Your task to perform on an android device: Clear the cart on costco. Search for "bose quietcomfort 35" on costco, select the first entry, add it to the cart, then select checkout. Image 0: 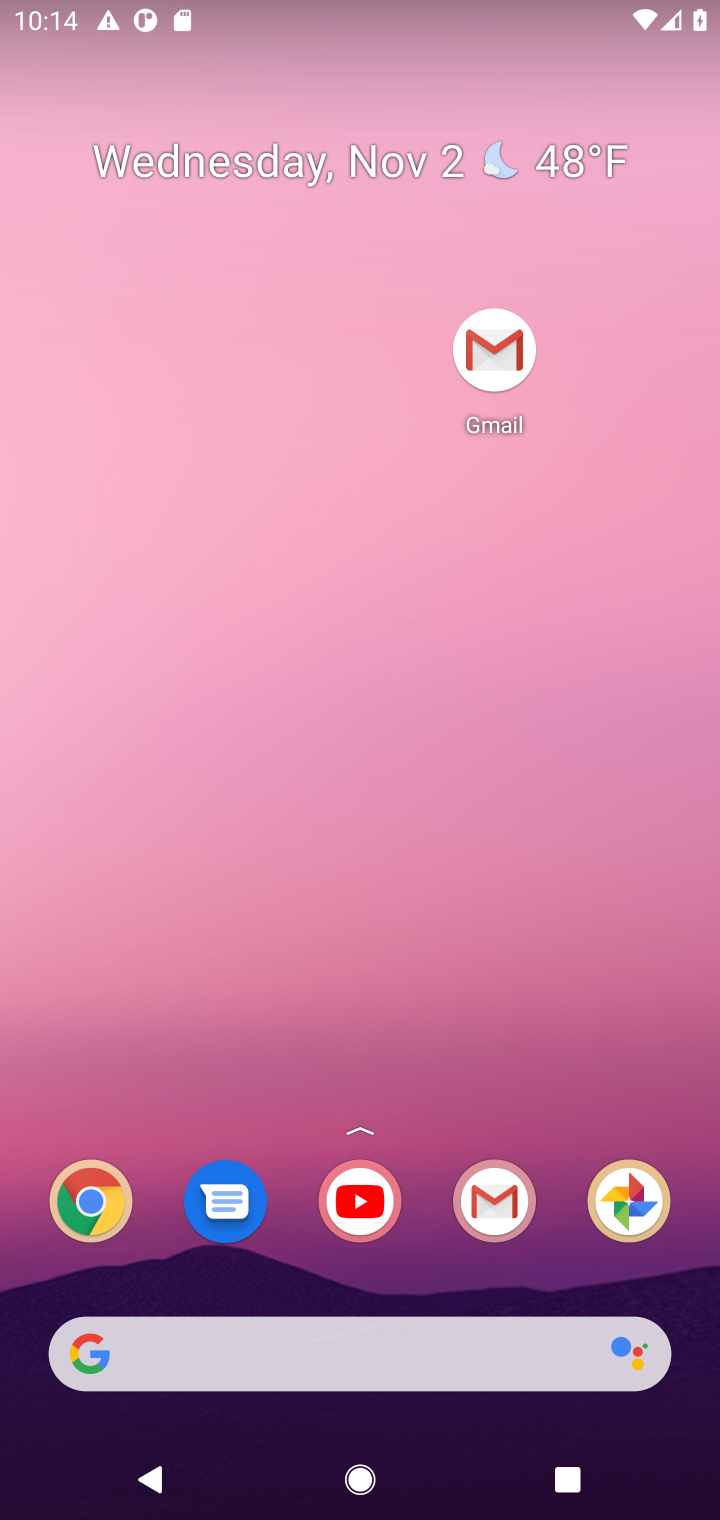
Step 0: drag from (430, 1280) to (446, 134)
Your task to perform on an android device: Clear the cart on costco. Search for "bose quietcomfort 35" on costco, select the first entry, add it to the cart, then select checkout. Image 1: 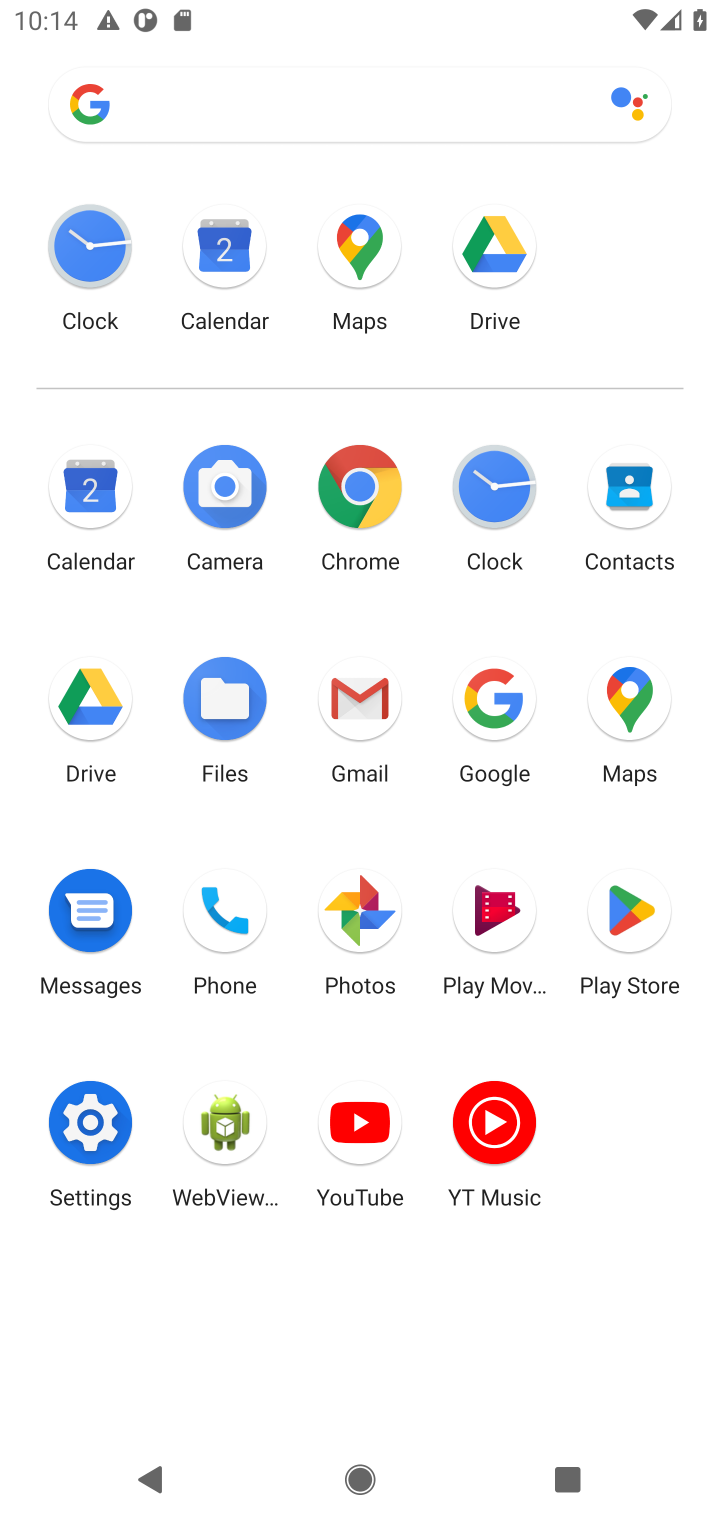
Step 1: click (366, 485)
Your task to perform on an android device: Clear the cart on costco. Search for "bose quietcomfort 35" on costco, select the first entry, add it to the cart, then select checkout. Image 2: 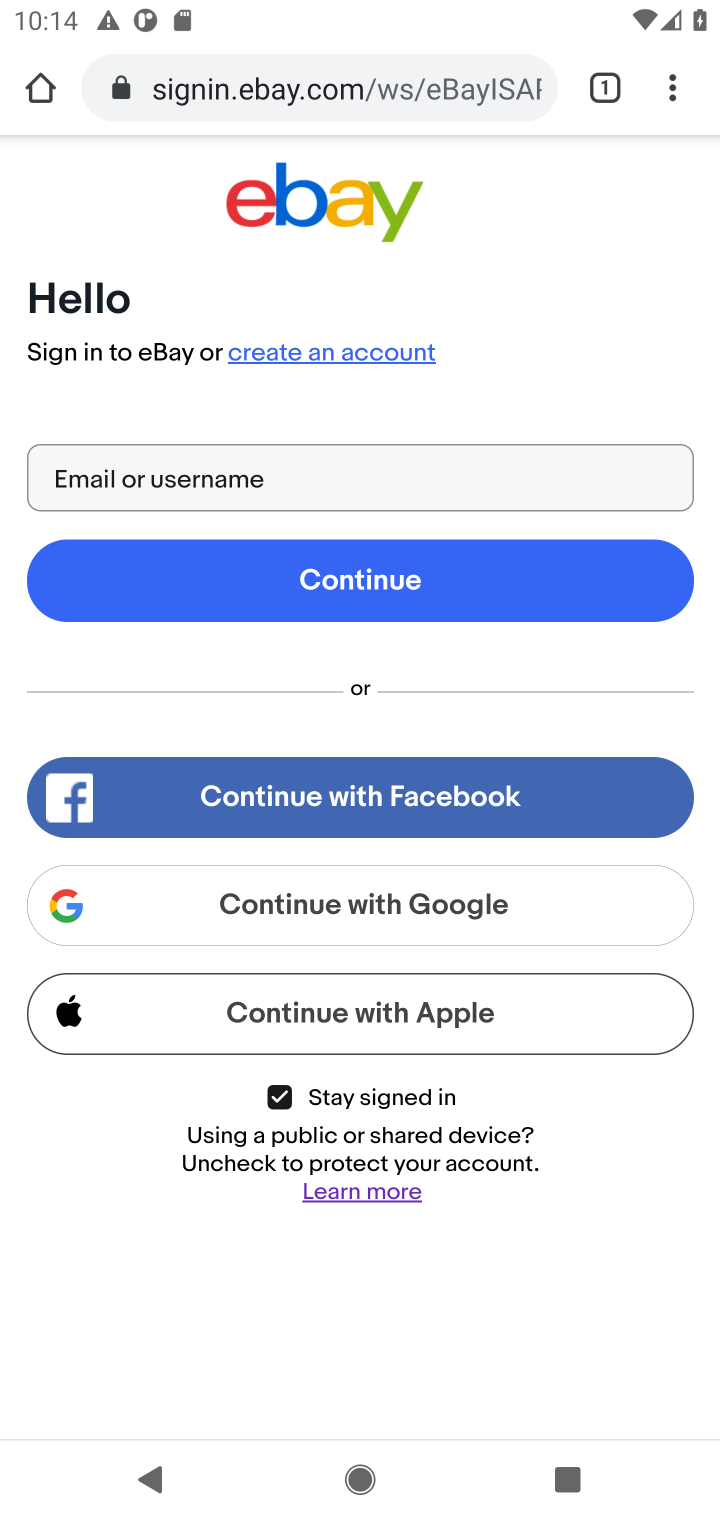
Step 2: click (375, 86)
Your task to perform on an android device: Clear the cart on costco. Search for "bose quietcomfort 35" on costco, select the first entry, add it to the cart, then select checkout. Image 3: 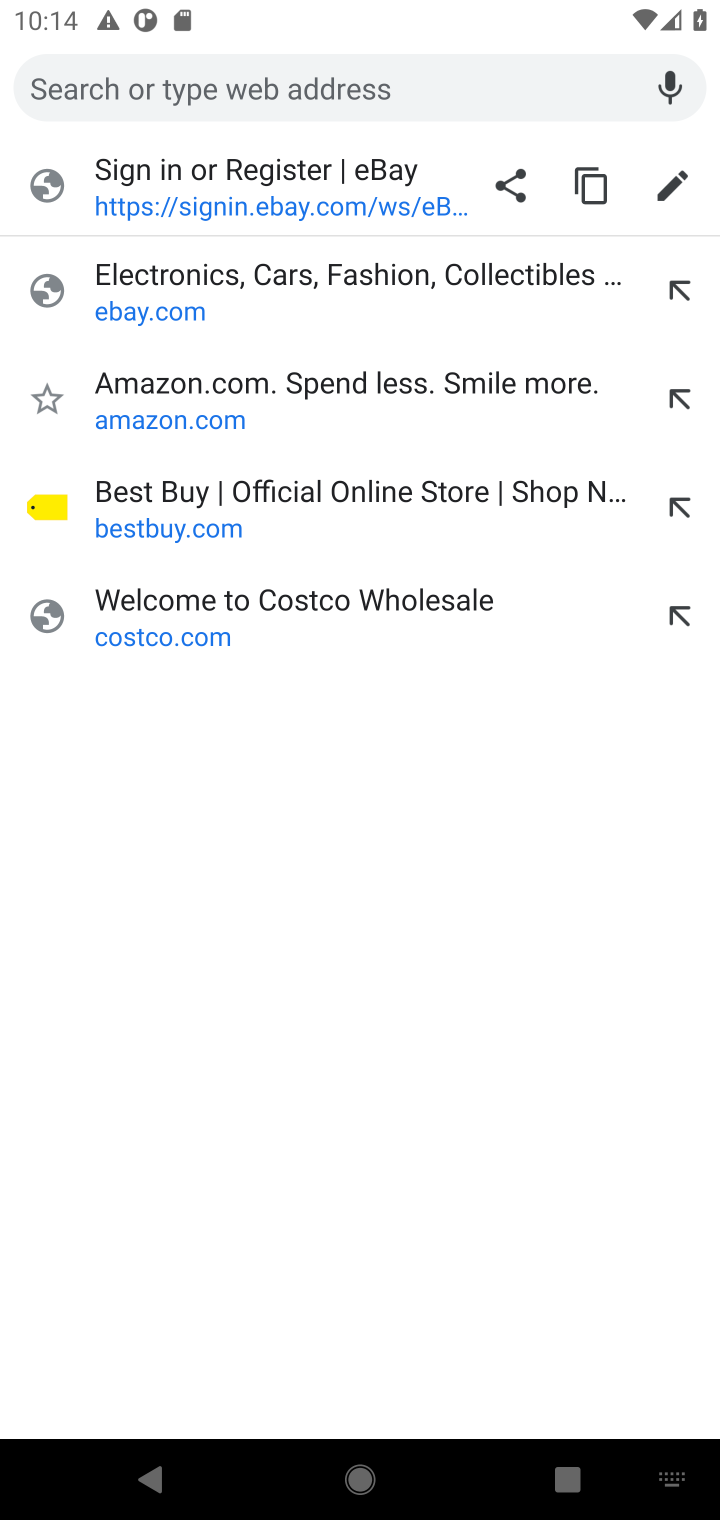
Step 3: type "costco.com"
Your task to perform on an android device: Clear the cart on costco. Search for "bose quietcomfort 35" on costco, select the first entry, add it to the cart, then select checkout. Image 4: 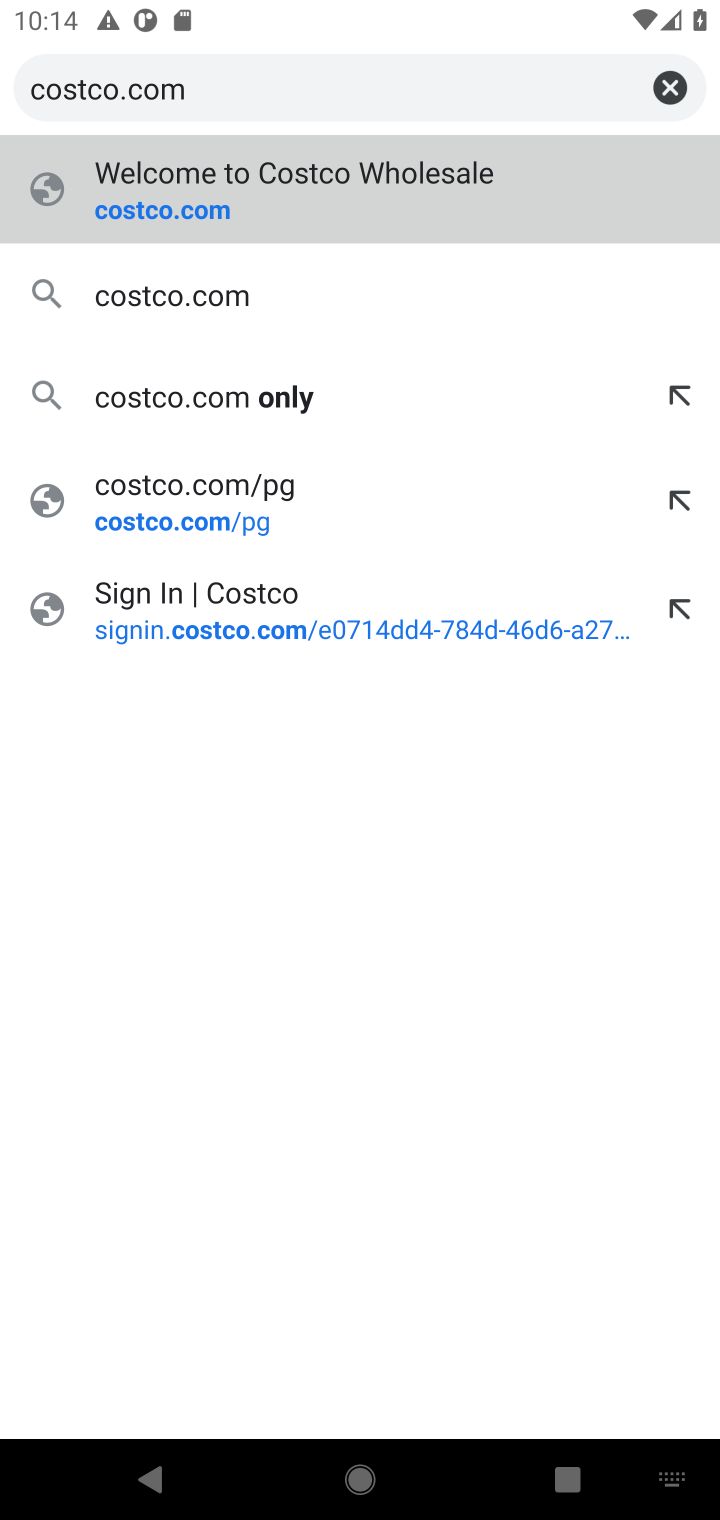
Step 4: press enter
Your task to perform on an android device: Clear the cart on costco. Search for "bose quietcomfort 35" on costco, select the first entry, add it to the cart, then select checkout. Image 5: 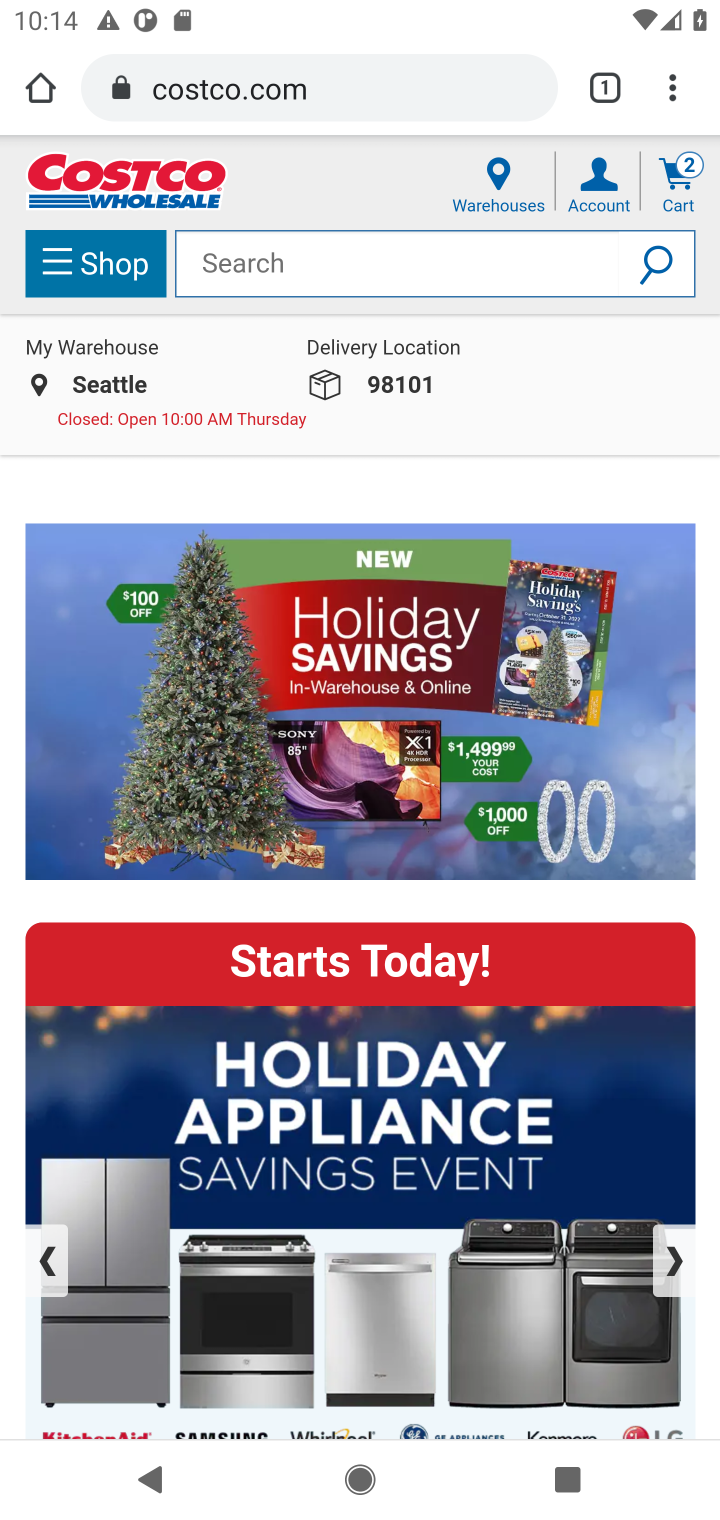
Step 5: click (433, 273)
Your task to perform on an android device: Clear the cart on costco. Search for "bose quietcomfort 35" on costco, select the first entry, add it to the cart, then select checkout. Image 6: 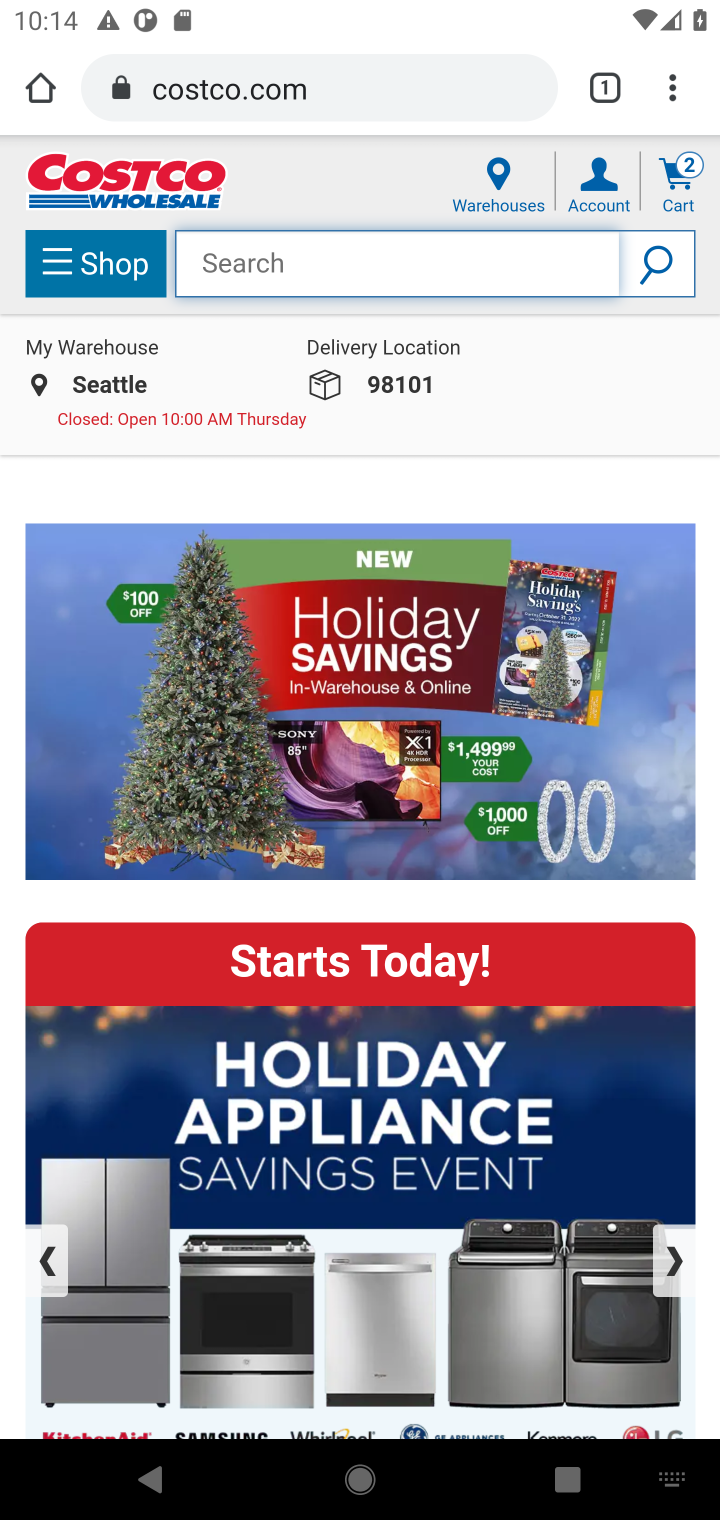
Step 6: type "bose quietcomfort 35"
Your task to perform on an android device: Clear the cart on costco. Search for "bose quietcomfort 35" on costco, select the first entry, add it to the cart, then select checkout. Image 7: 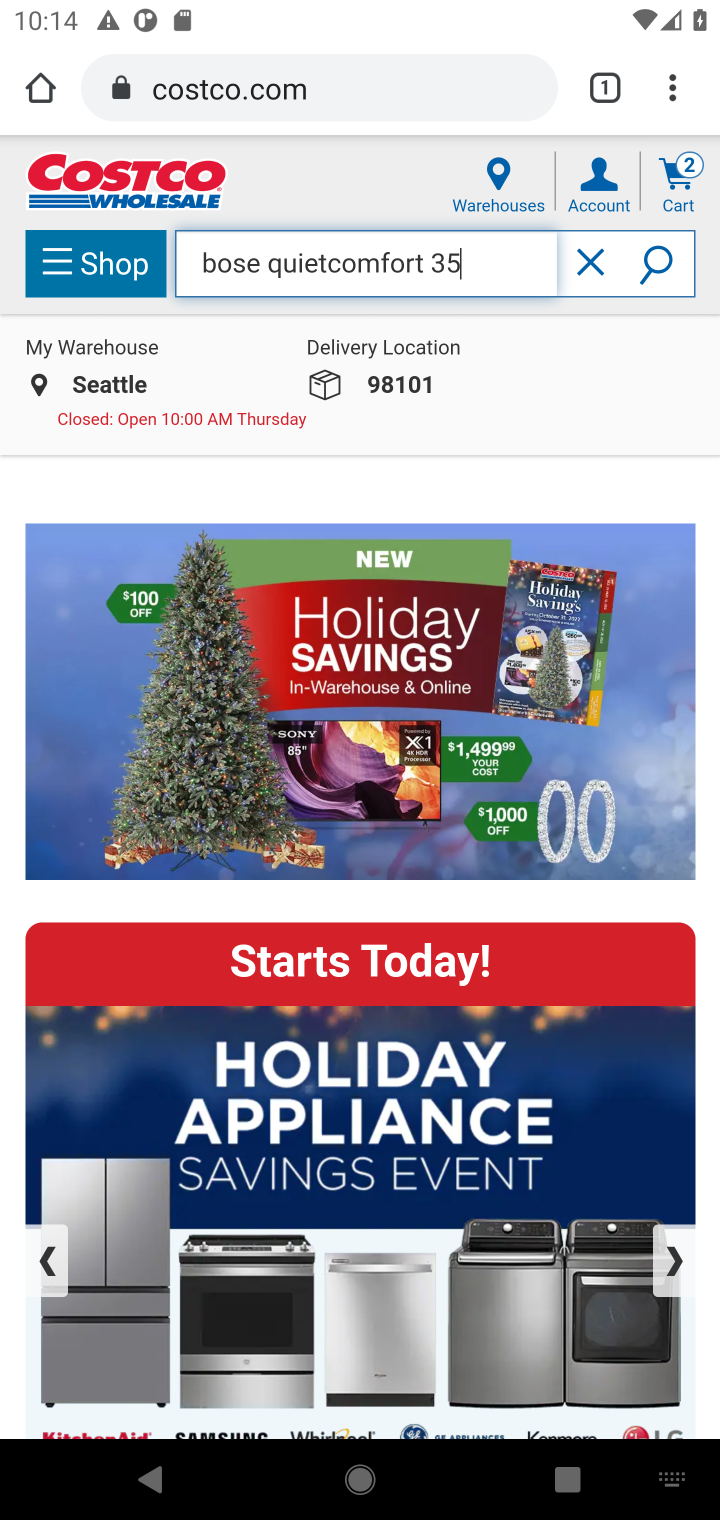
Step 7: press enter
Your task to perform on an android device: Clear the cart on costco. Search for "bose quietcomfort 35" on costco, select the first entry, add it to the cart, then select checkout. Image 8: 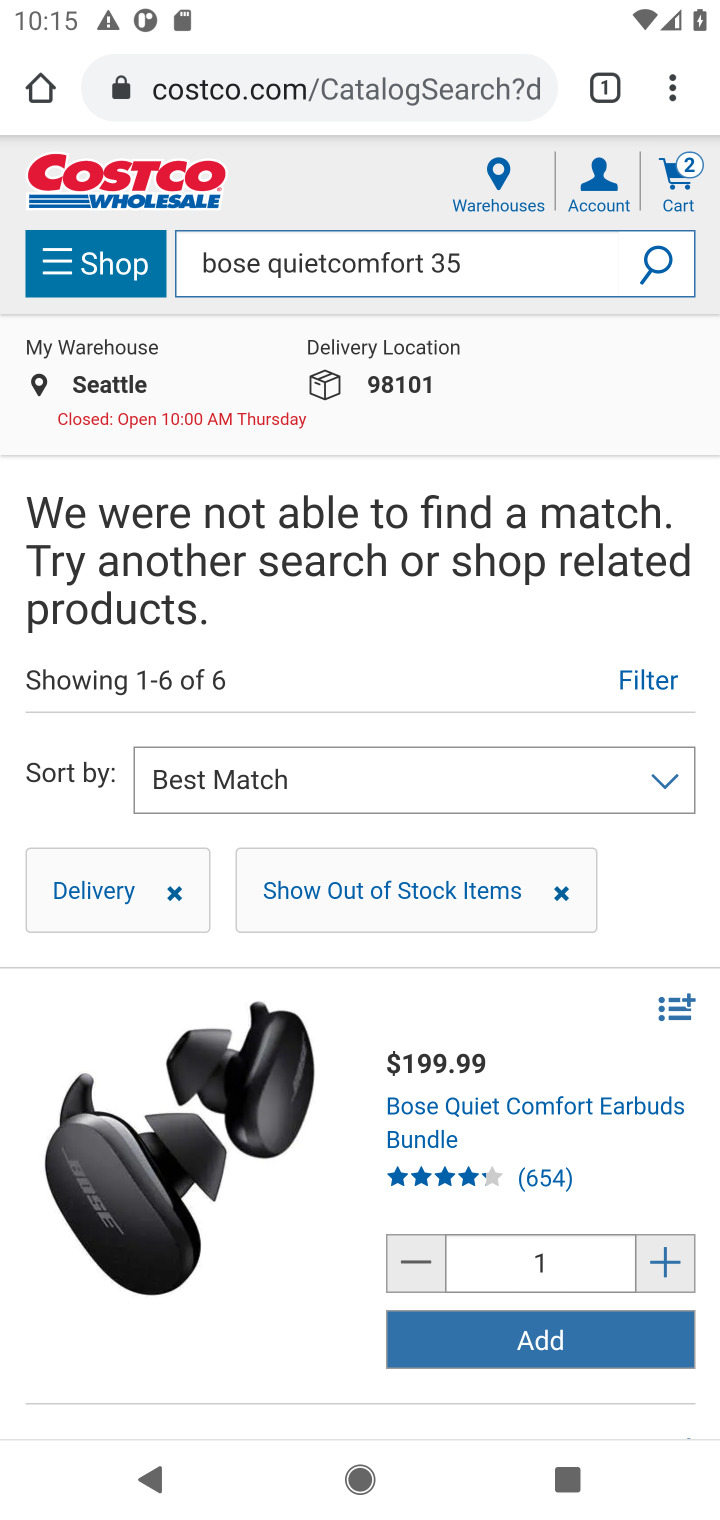
Step 8: task complete